Your task to perform on an android device: search for starred emails in the gmail app Image 0: 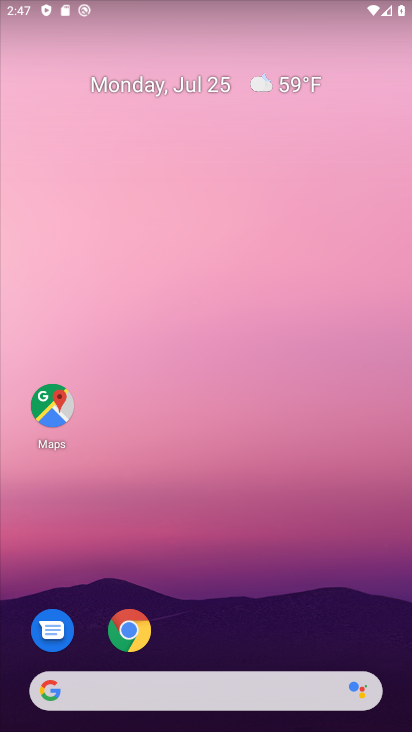
Step 0: drag from (256, 636) to (227, 216)
Your task to perform on an android device: search for starred emails in the gmail app Image 1: 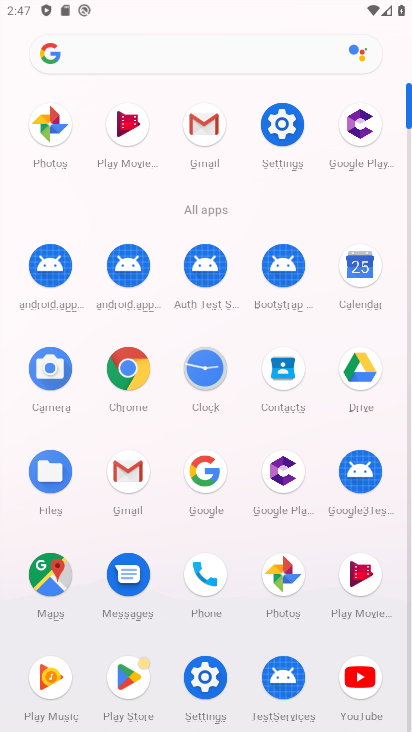
Step 1: click (123, 461)
Your task to perform on an android device: search for starred emails in the gmail app Image 2: 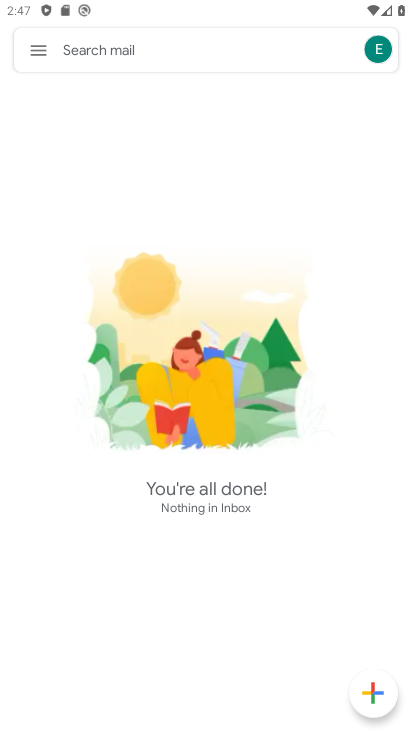
Step 2: click (38, 58)
Your task to perform on an android device: search for starred emails in the gmail app Image 3: 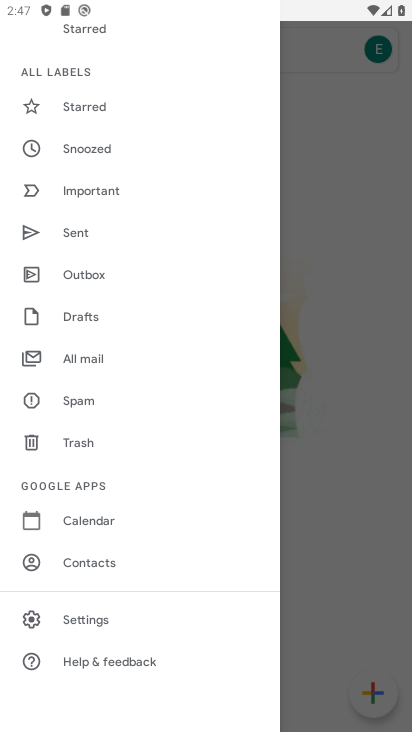
Step 3: click (103, 100)
Your task to perform on an android device: search for starred emails in the gmail app Image 4: 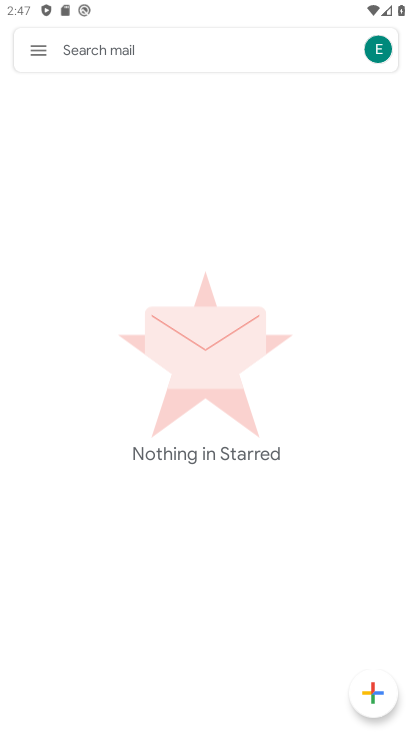
Step 4: task complete